Your task to perform on an android device: remove spam from my inbox in the gmail app Image 0: 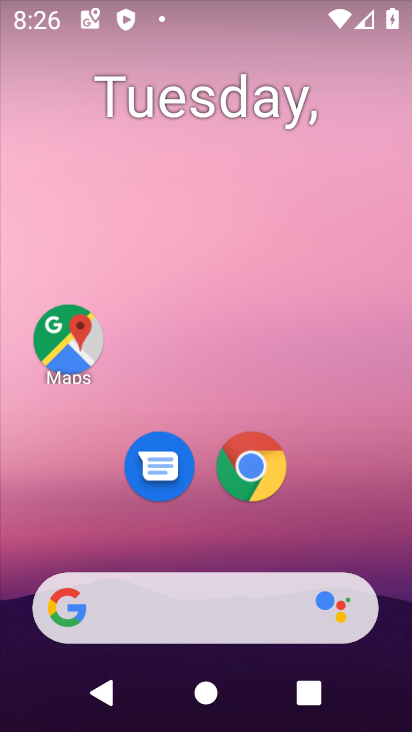
Step 0: drag from (372, 519) to (281, 21)
Your task to perform on an android device: remove spam from my inbox in the gmail app Image 1: 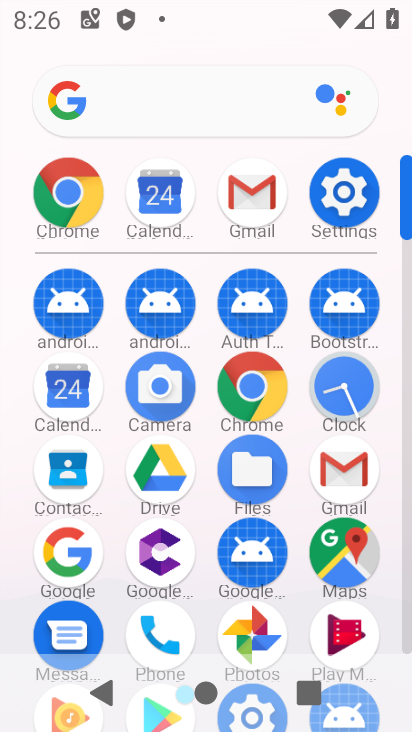
Step 1: click (257, 221)
Your task to perform on an android device: remove spam from my inbox in the gmail app Image 2: 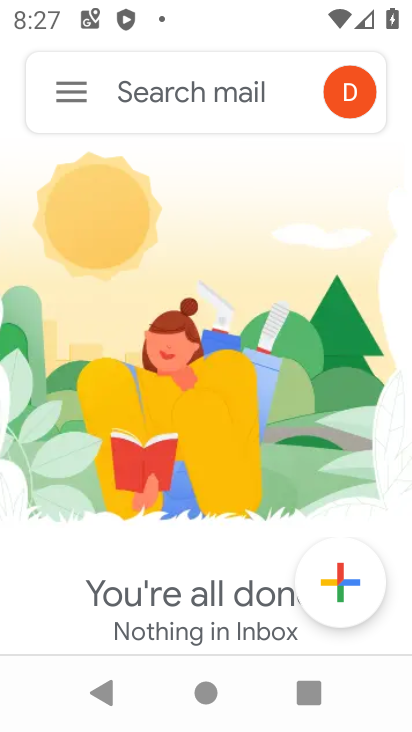
Step 2: click (94, 76)
Your task to perform on an android device: remove spam from my inbox in the gmail app Image 3: 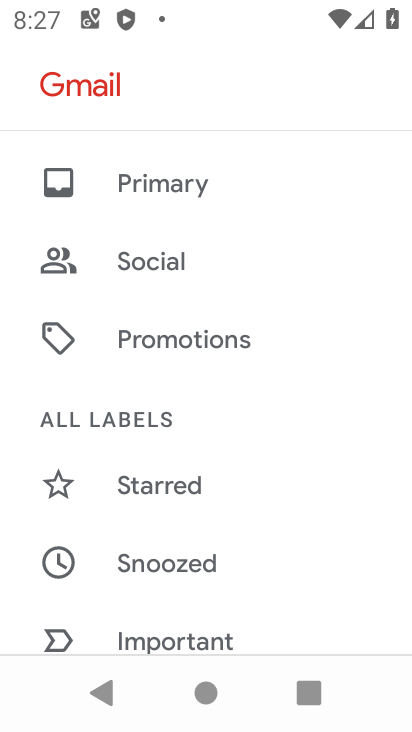
Step 3: drag from (217, 615) to (207, 304)
Your task to perform on an android device: remove spam from my inbox in the gmail app Image 4: 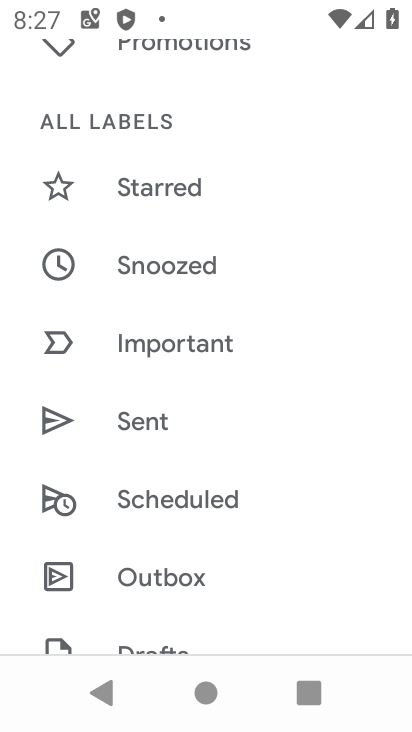
Step 4: drag from (270, 173) to (379, 669)
Your task to perform on an android device: remove spam from my inbox in the gmail app Image 5: 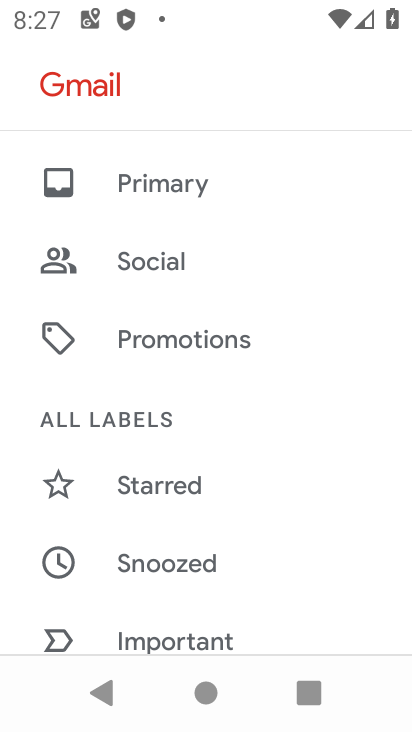
Step 5: click (236, 200)
Your task to perform on an android device: remove spam from my inbox in the gmail app Image 6: 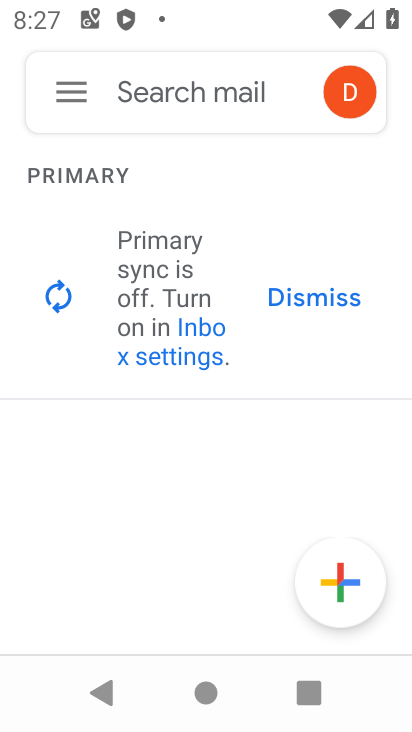
Step 6: task complete